Your task to perform on an android device: Go to eBay Image 0: 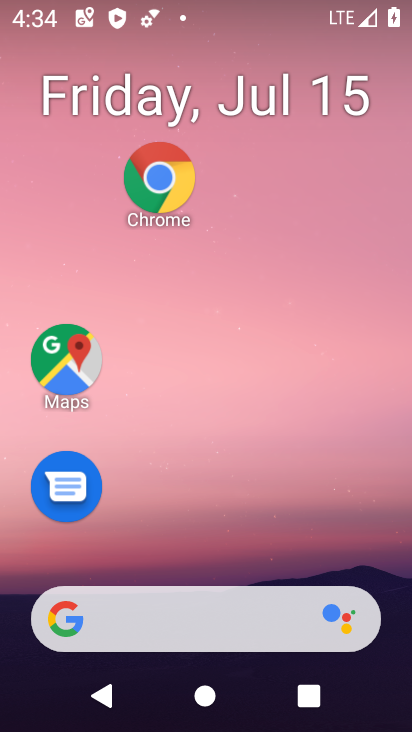
Step 0: drag from (195, 537) to (168, 32)
Your task to perform on an android device: Go to eBay Image 1: 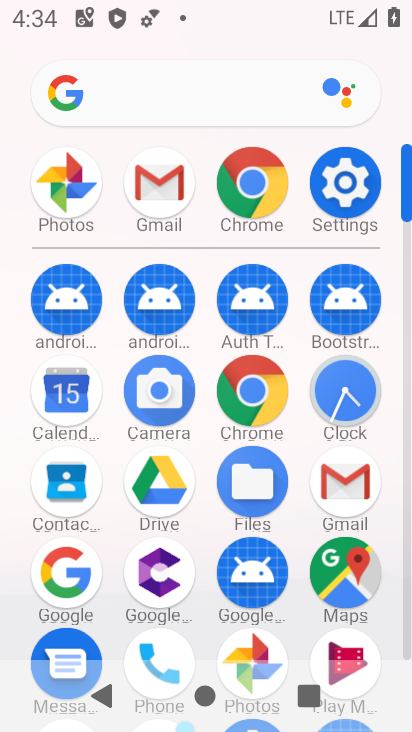
Step 1: click (343, 190)
Your task to perform on an android device: Go to eBay Image 2: 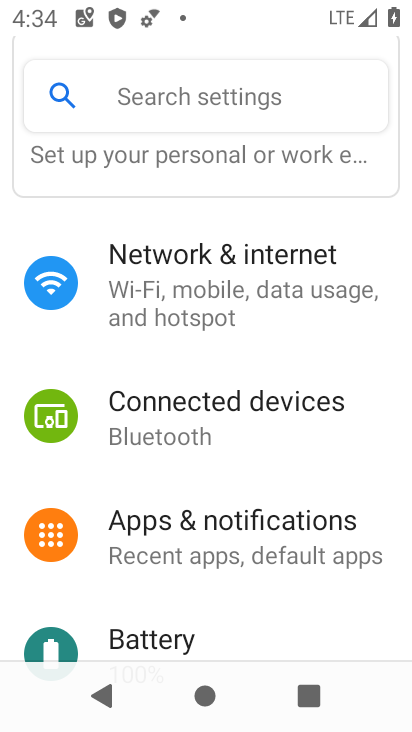
Step 2: drag from (175, 544) to (200, 140)
Your task to perform on an android device: Go to eBay Image 3: 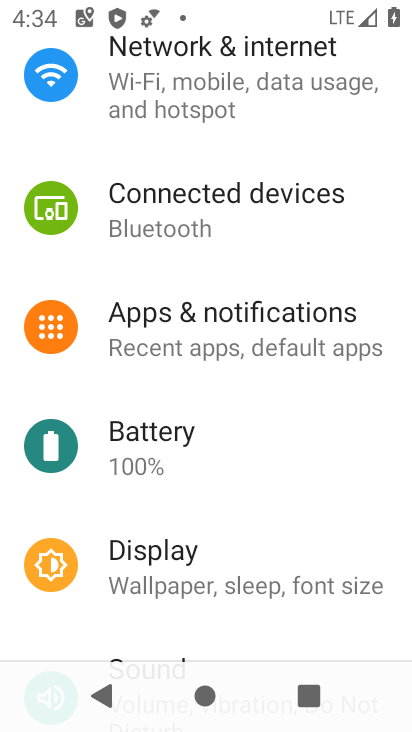
Step 3: drag from (247, 455) to (270, 144)
Your task to perform on an android device: Go to eBay Image 4: 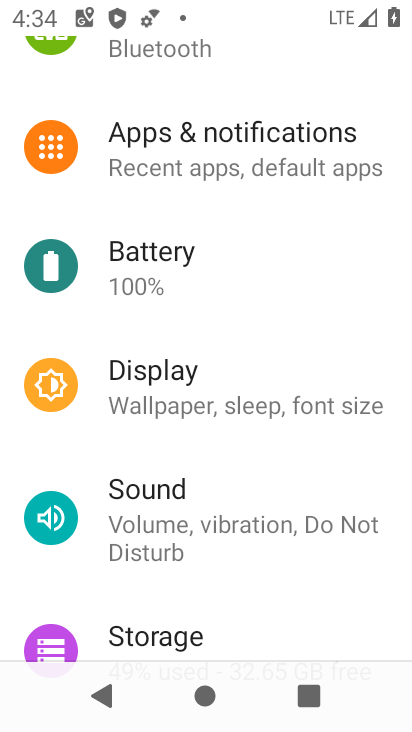
Step 4: drag from (257, 311) to (259, 222)
Your task to perform on an android device: Go to eBay Image 5: 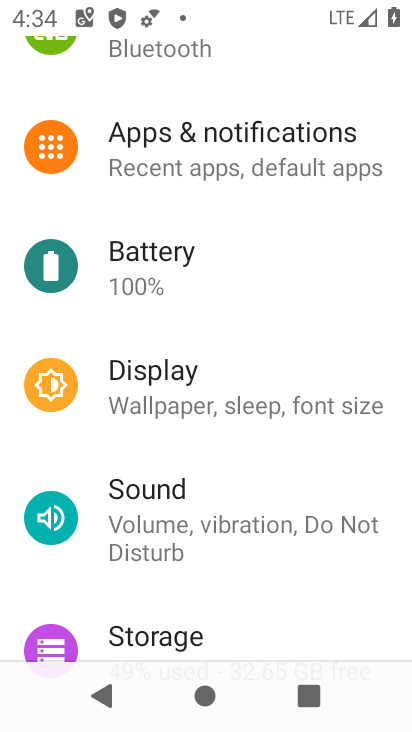
Step 5: drag from (206, 556) to (219, 290)
Your task to perform on an android device: Go to eBay Image 6: 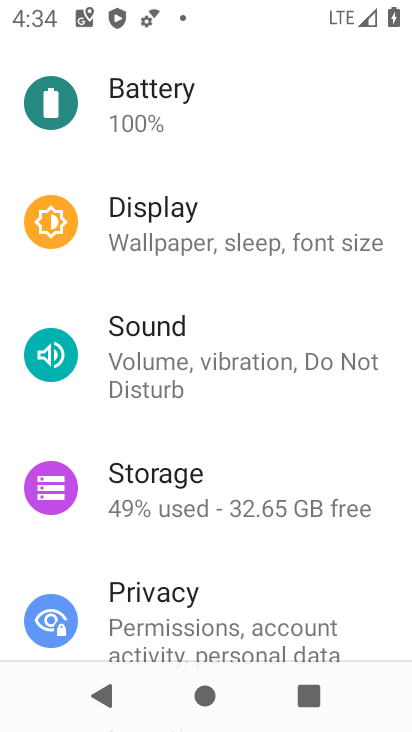
Step 6: drag from (210, 331) to (143, 594)
Your task to perform on an android device: Go to eBay Image 7: 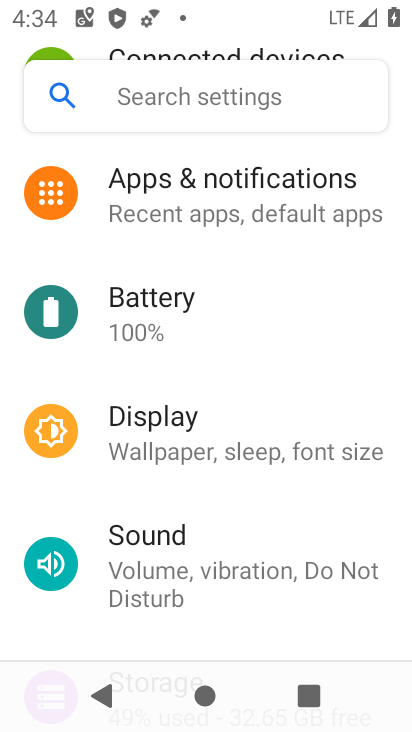
Step 7: press home button
Your task to perform on an android device: Go to eBay Image 8: 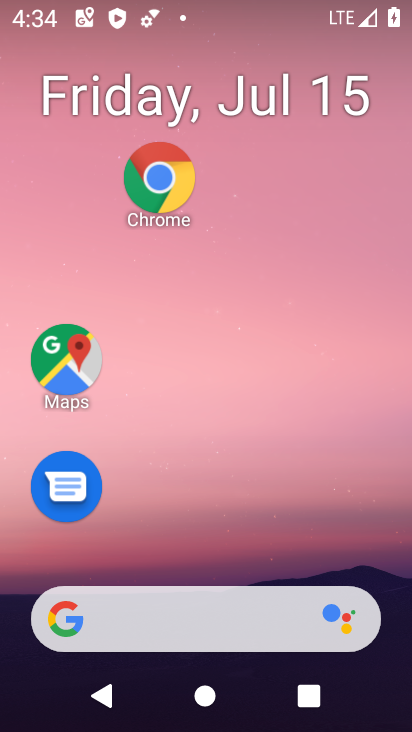
Step 8: click (168, 182)
Your task to perform on an android device: Go to eBay Image 9: 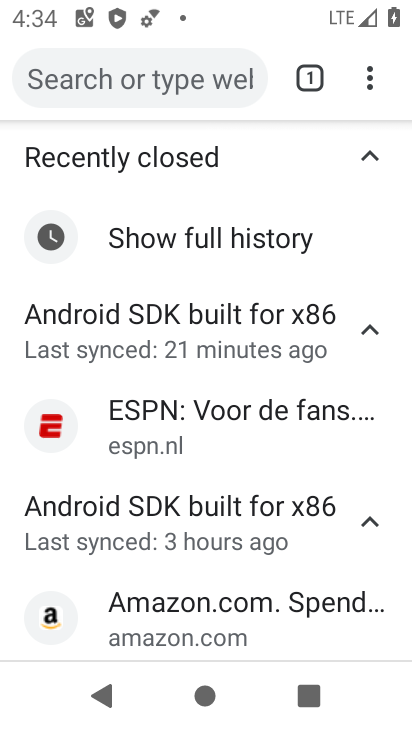
Step 9: click (139, 91)
Your task to perform on an android device: Go to eBay Image 10: 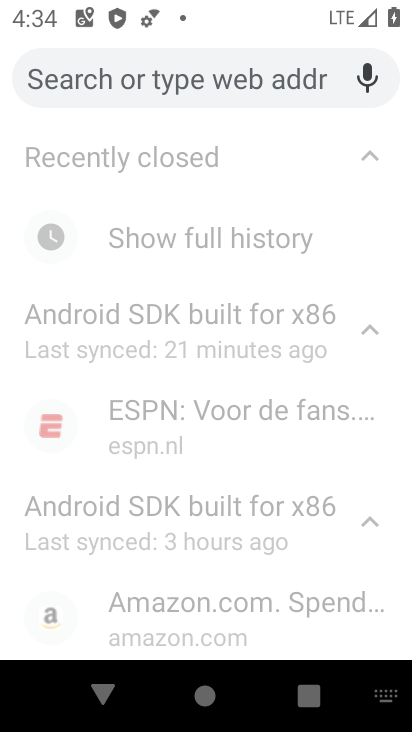
Step 10: type "www.ebay.com"
Your task to perform on an android device: Go to eBay Image 11: 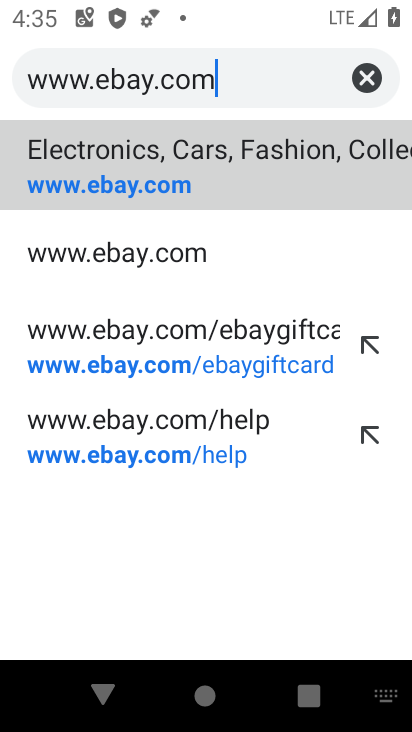
Step 11: click (151, 191)
Your task to perform on an android device: Go to eBay Image 12: 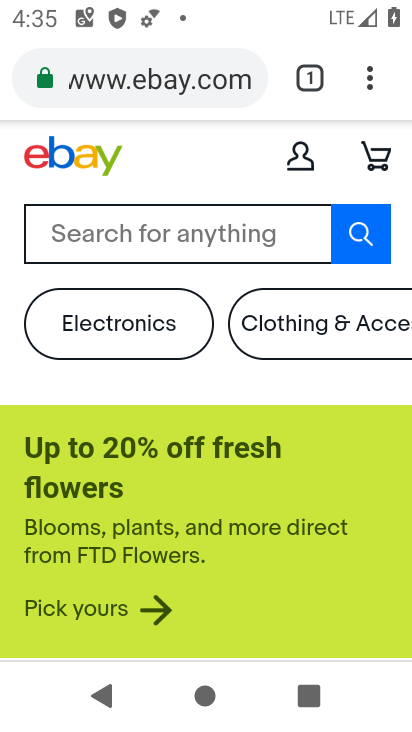
Step 12: task complete